Your task to perform on an android device: uninstall "VLC for Android" Image 0: 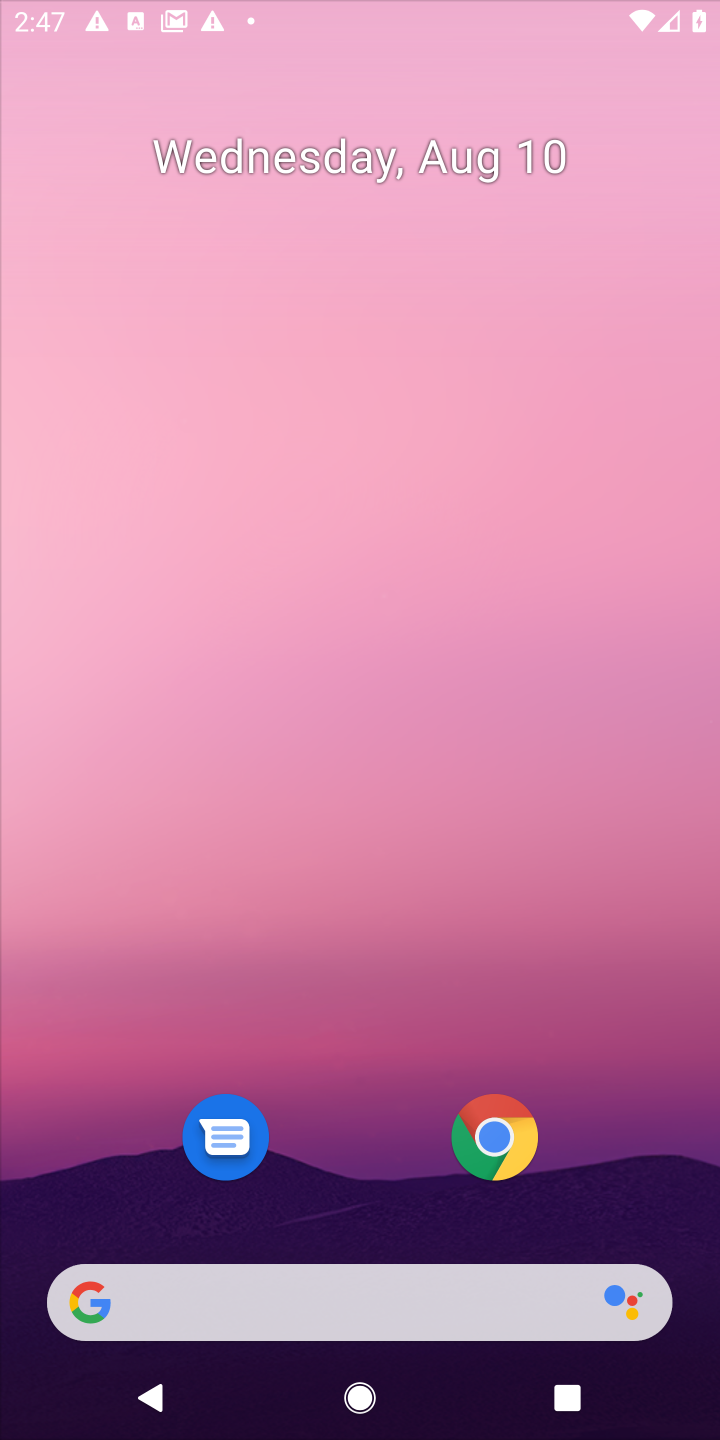
Step 0: press home button
Your task to perform on an android device: uninstall "VLC for Android" Image 1: 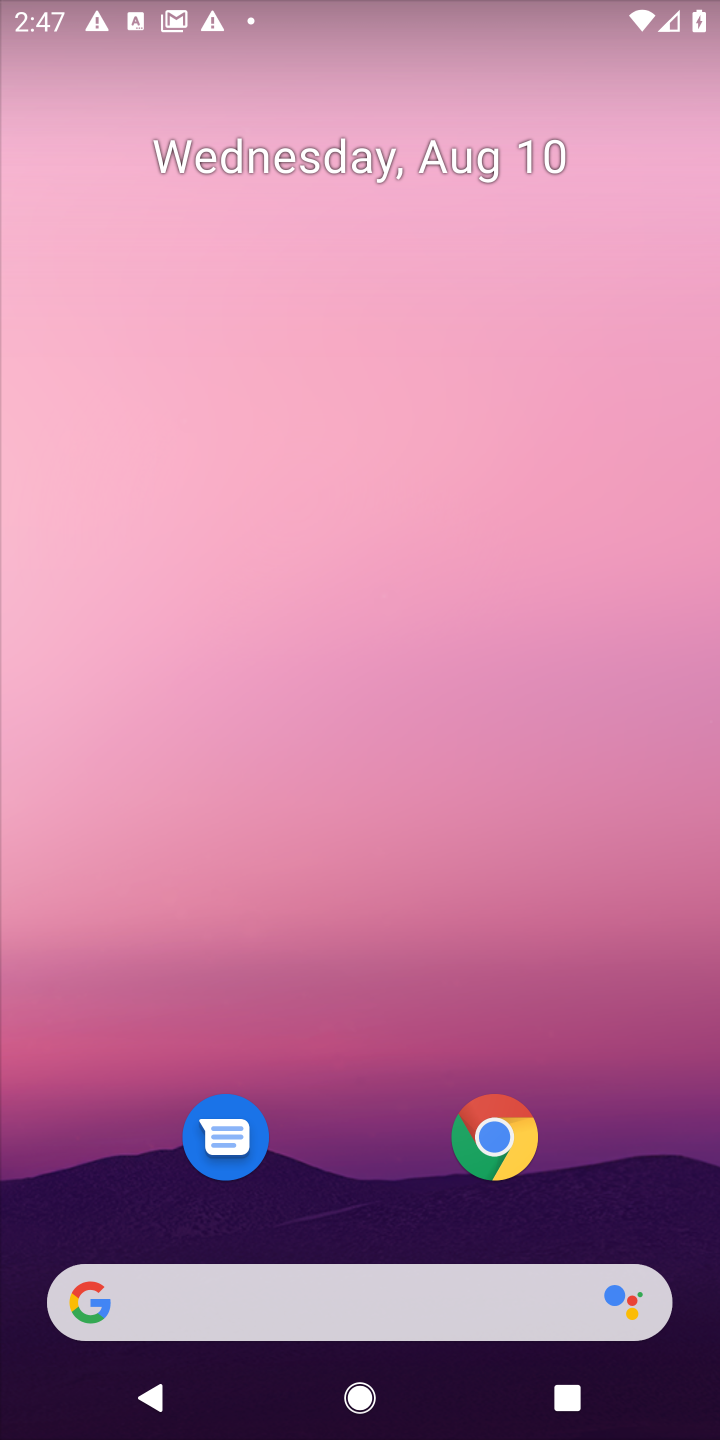
Step 1: drag from (314, 1201) to (339, 191)
Your task to perform on an android device: uninstall "VLC for Android" Image 2: 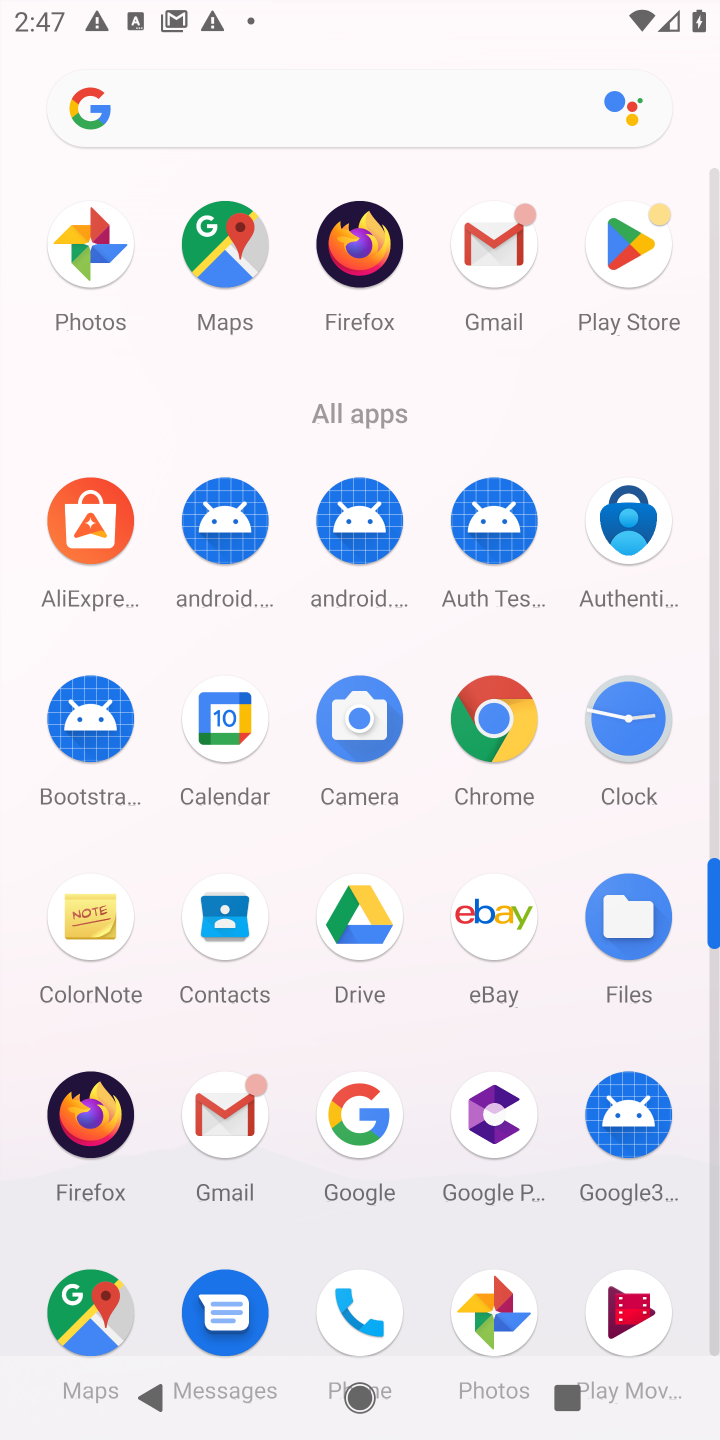
Step 2: click (613, 275)
Your task to perform on an android device: uninstall "VLC for Android" Image 3: 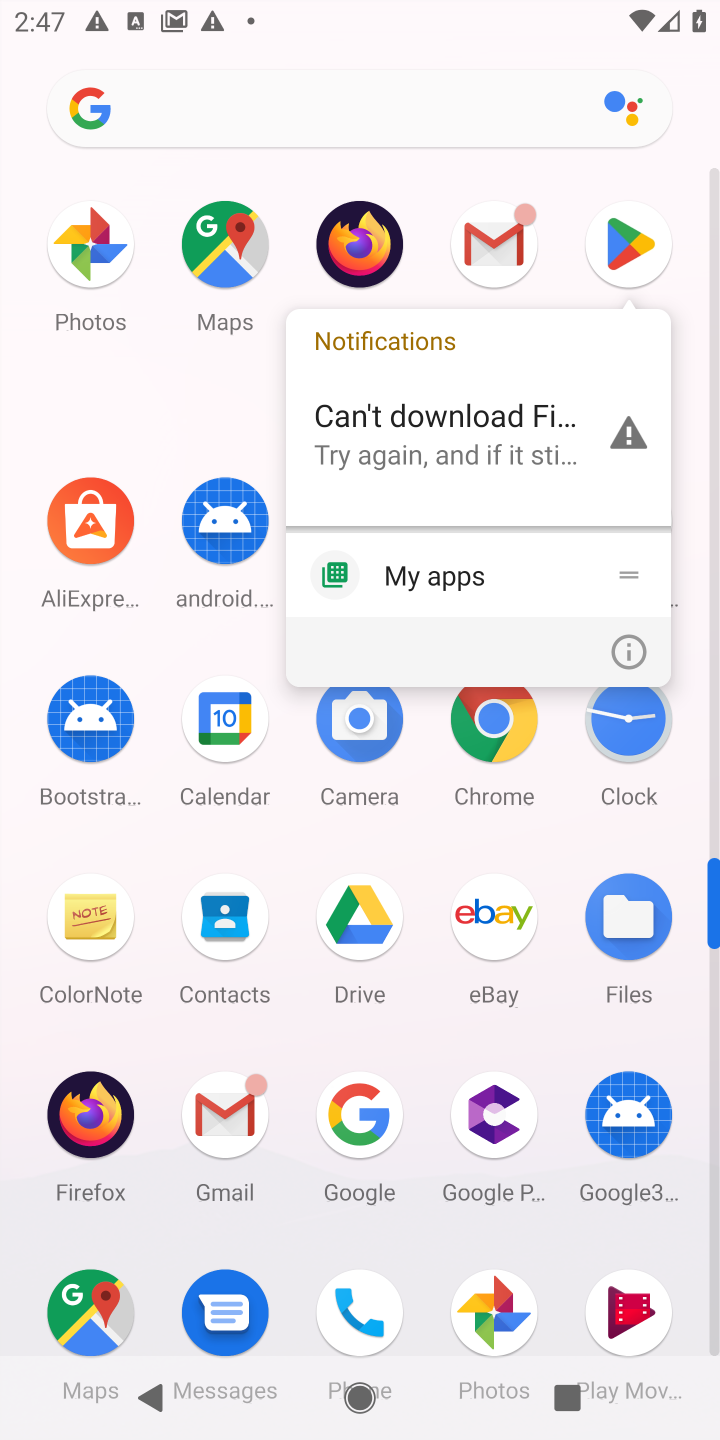
Step 3: click (643, 259)
Your task to perform on an android device: uninstall "VLC for Android" Image 4: 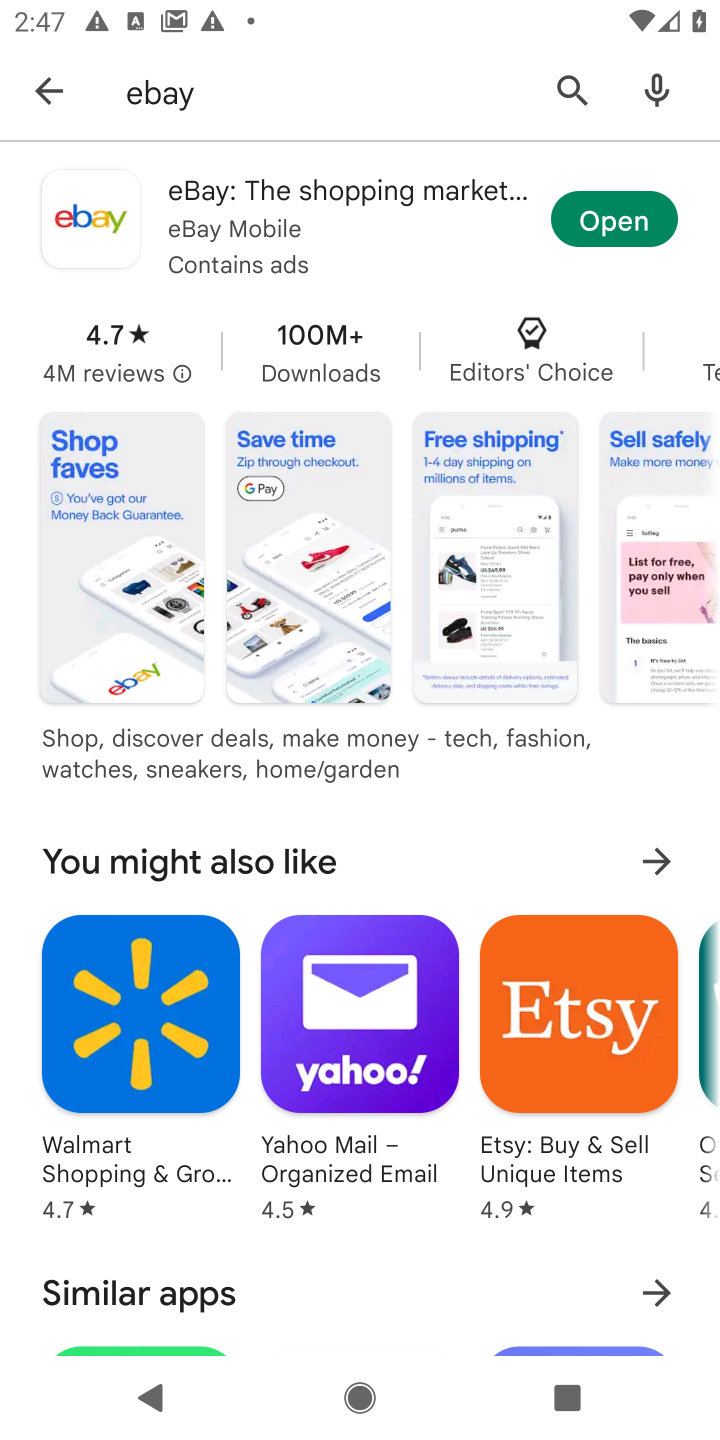
Step 4: click (244, 76)
Your task to perform on an android device: uninstall "VLC for Android" Image 5: 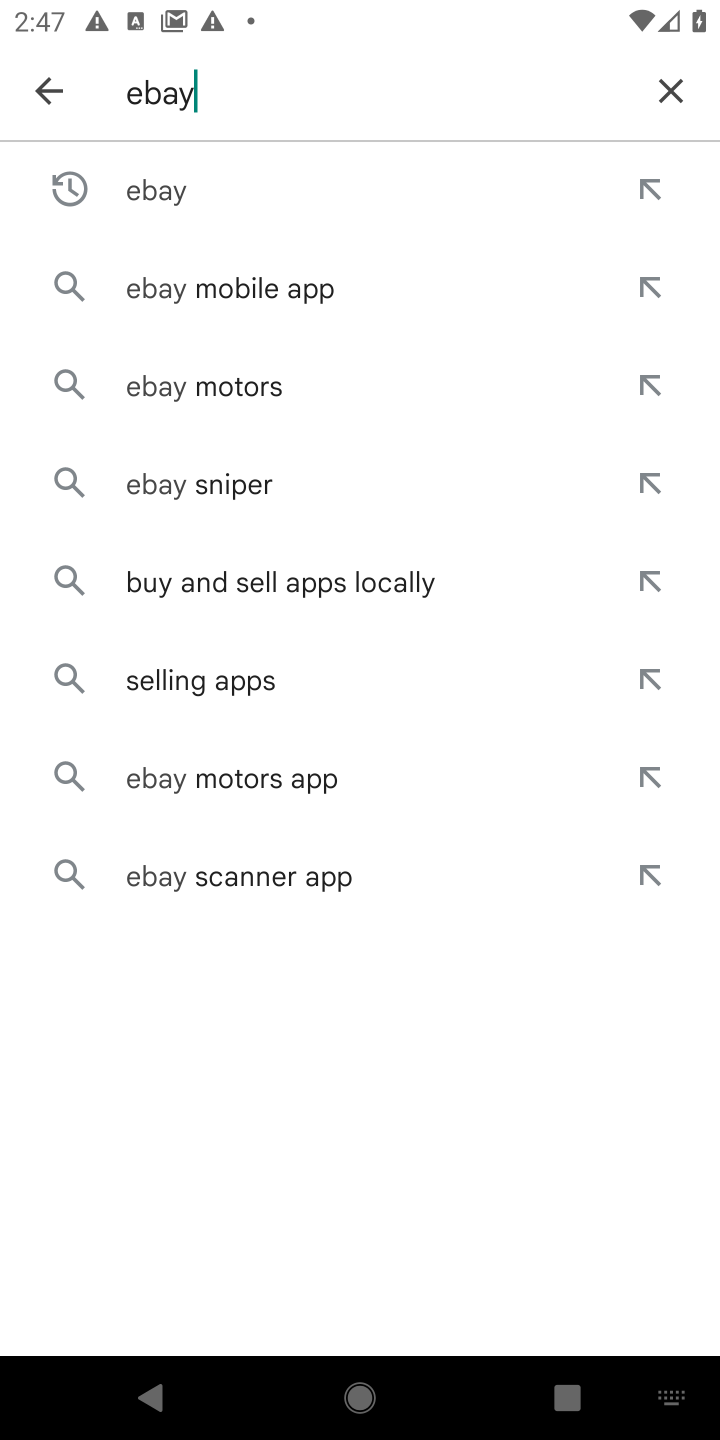
Step 5: click (671, 82)
Your task to perform on an android device: uninstall "VLC for Android" Image 6: 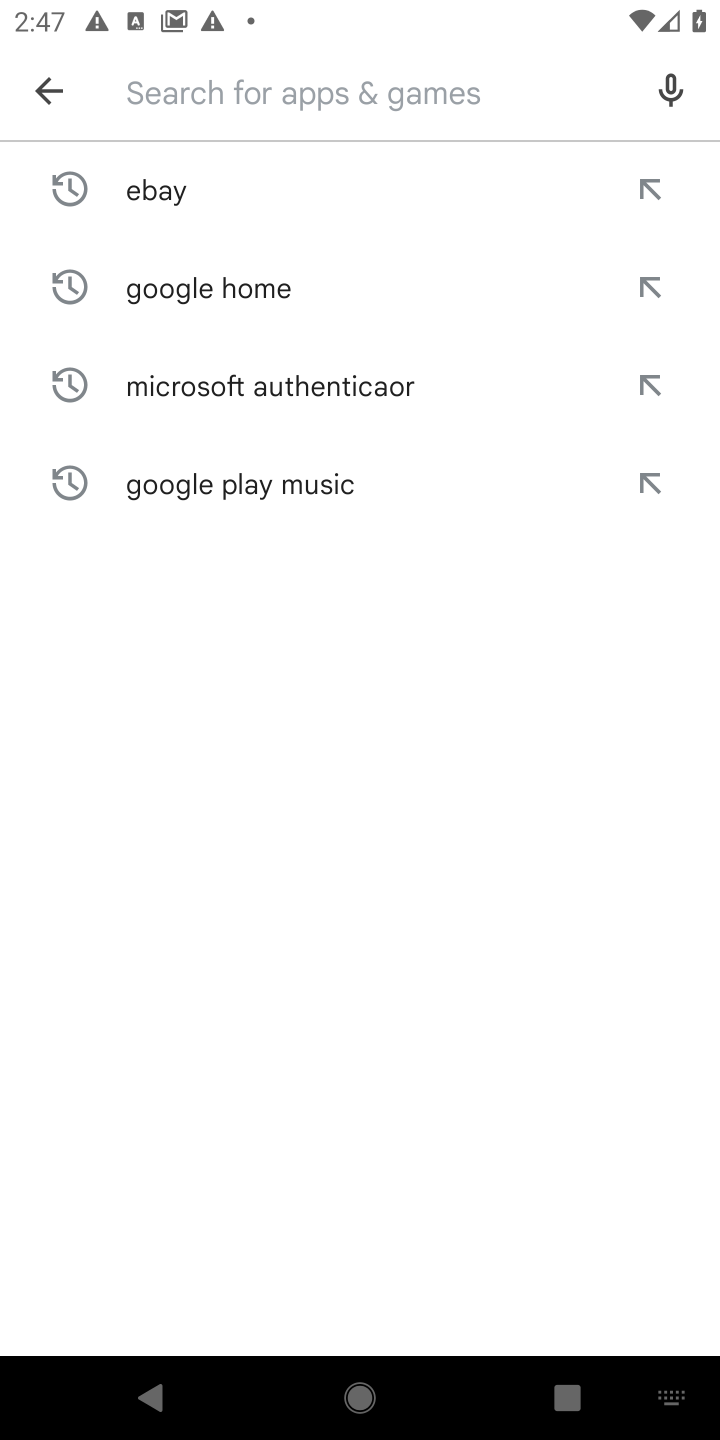
Step 6: type "VLC for android"
Your task to perform on an android device: uninstall "VLC for Android" Image 7: 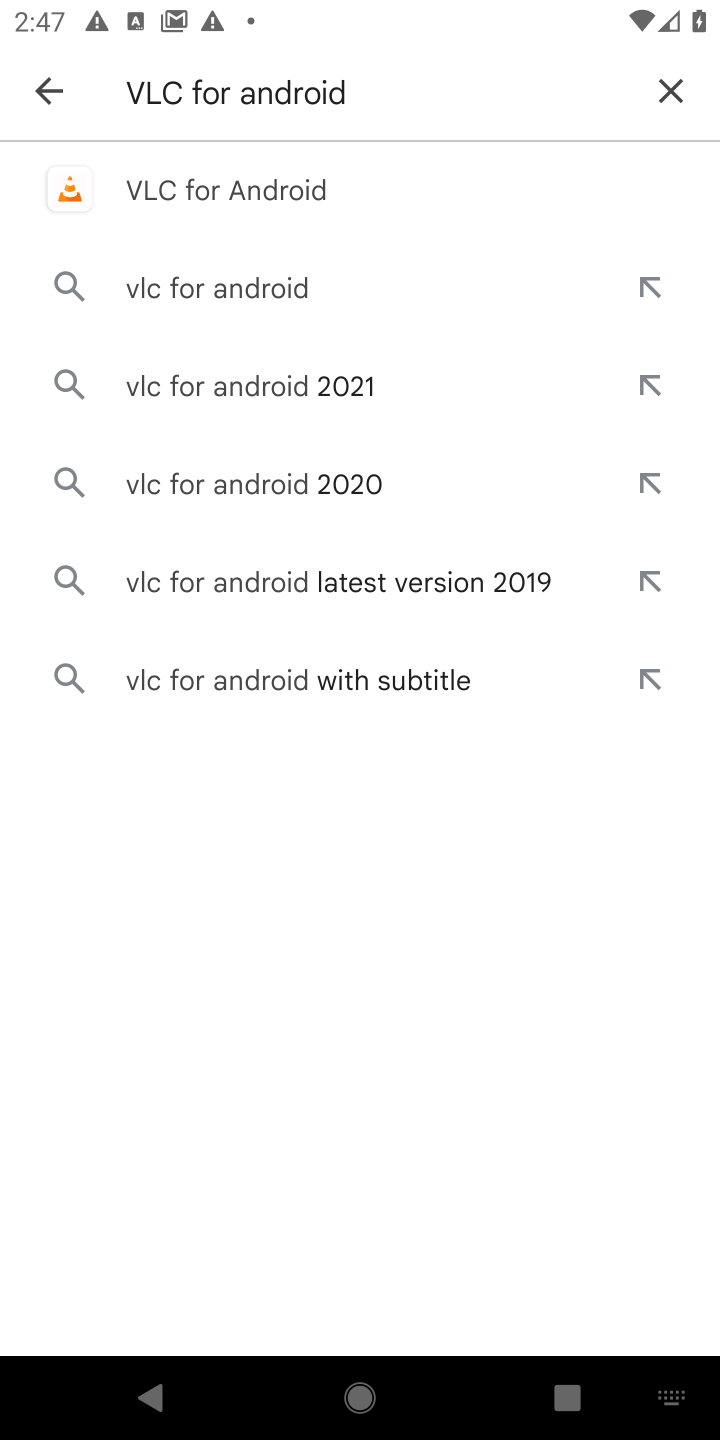
Step 7: click (288, 202)
Your task to perform on an android device: uninstall "VLC for Android" Image 8: 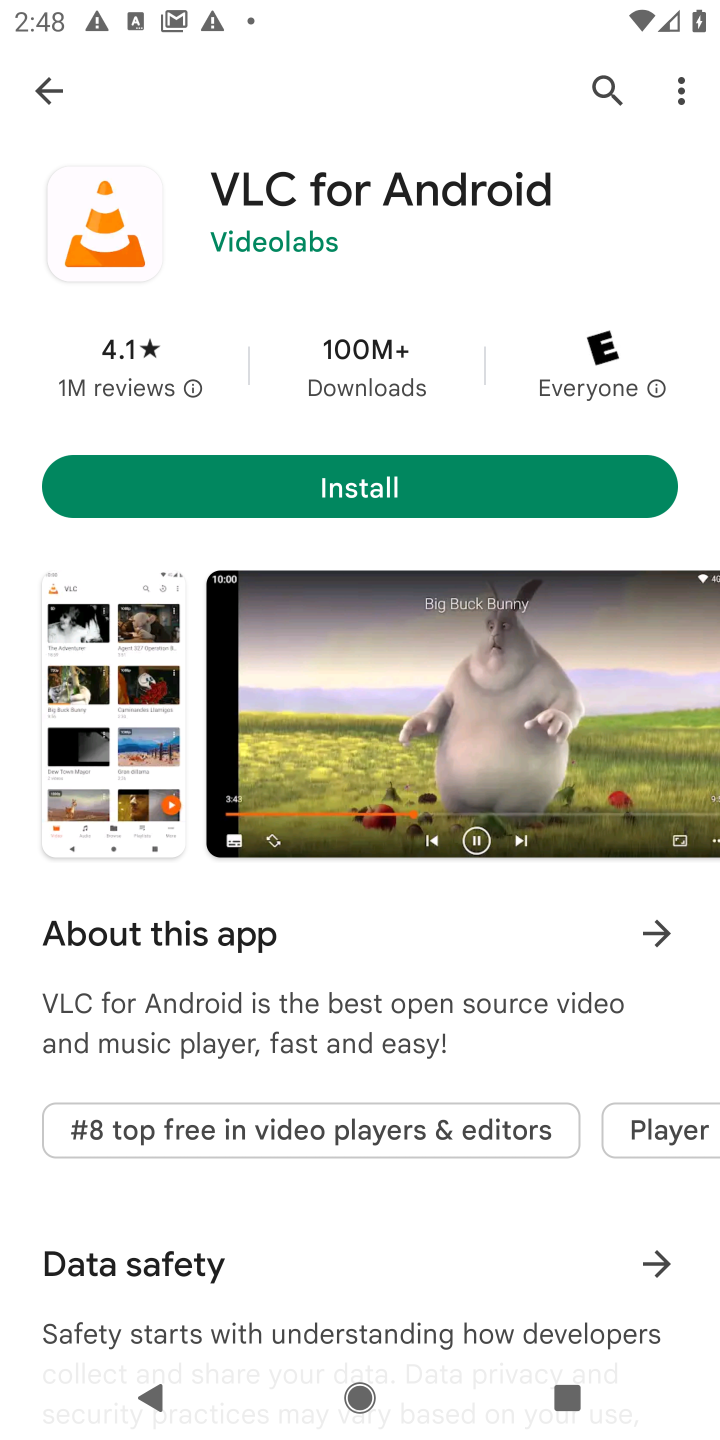
Step 8: task complete